Your task to perform on an android device: Open Reddit.com Image 0: 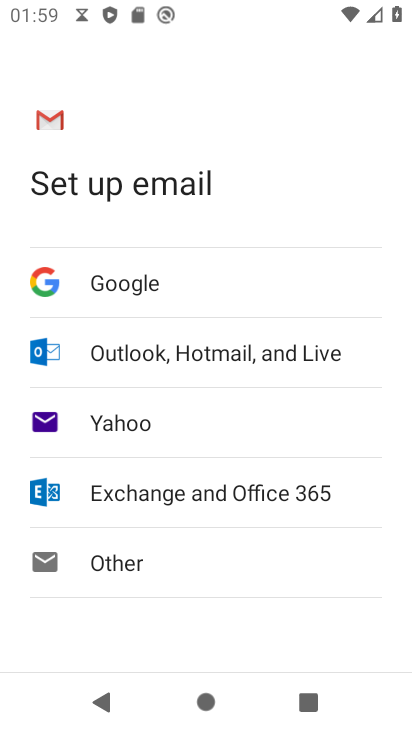
Step 0: press home button
Your task to perform on an android device: Open Reddit.com Image 1: 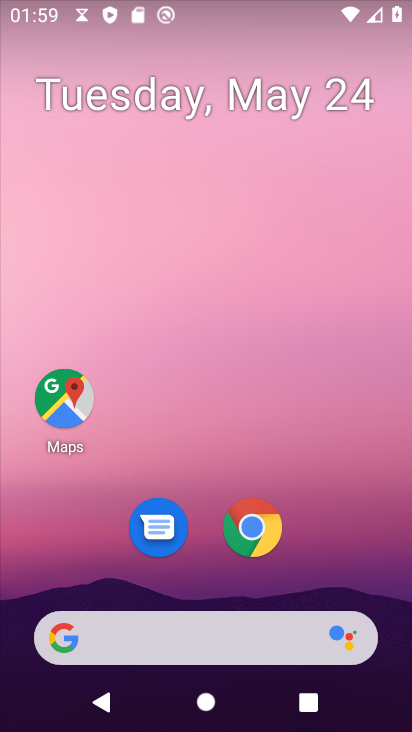
Step 1: click (254, 526)
Your task to perform on an android device: Open Reddit.com Image 2: 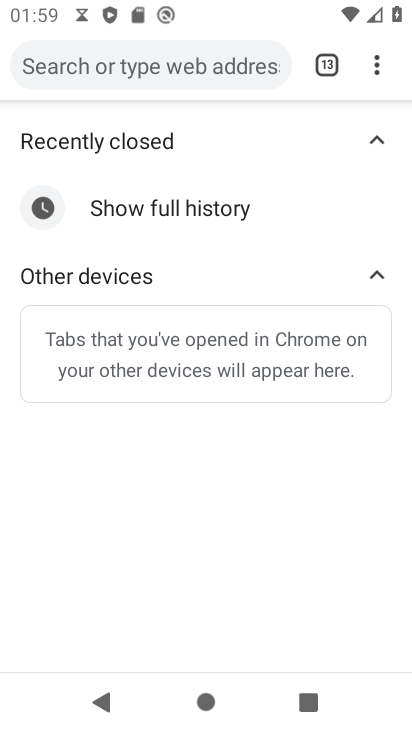
Step 2: drag from (380, 67) to (189, 121)
Your task to perform on an android device: Open Reddit.com Image 3: 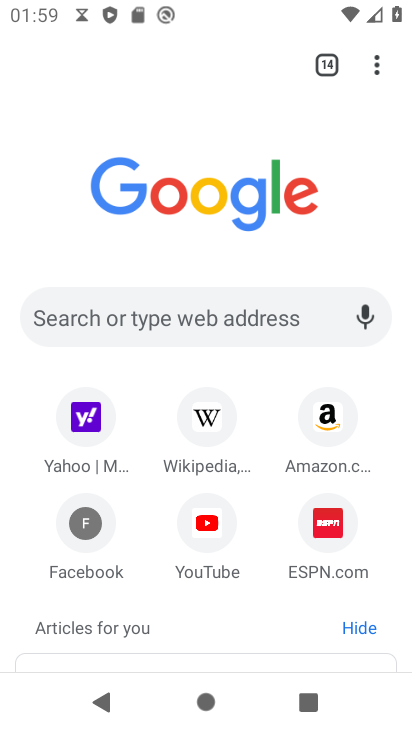
Step 3: click (111, 320)
Your task to perform on an android device: Open Reddit.com Image 4: 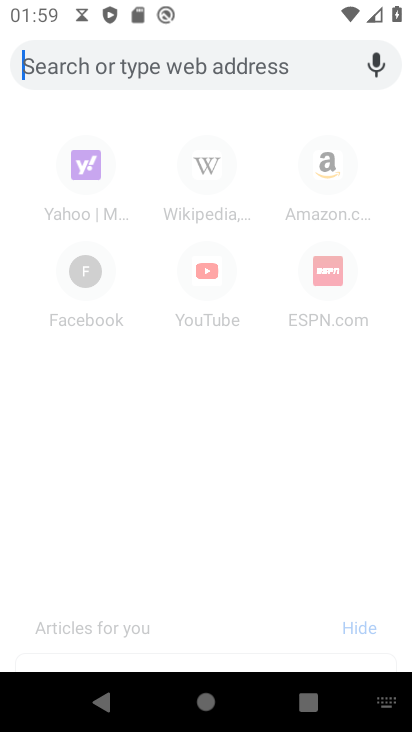
Step 4: type "reddit.com"
Your task to perform on an android device: Open Reddit.com Image 5: 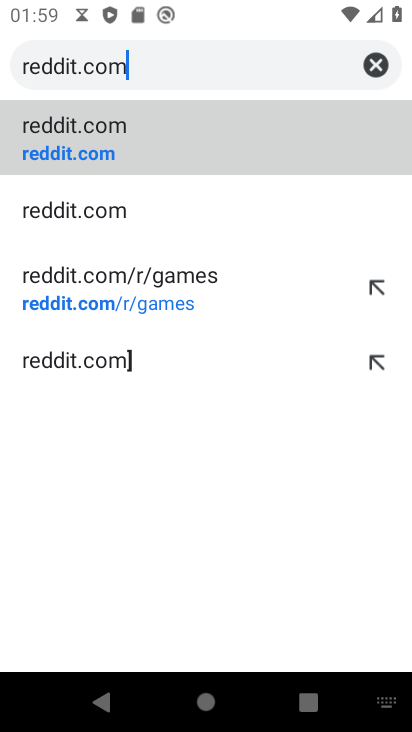
Step 5: click (67, 119)
Your task to perform on an android device: Open Reddit.com Image 6: 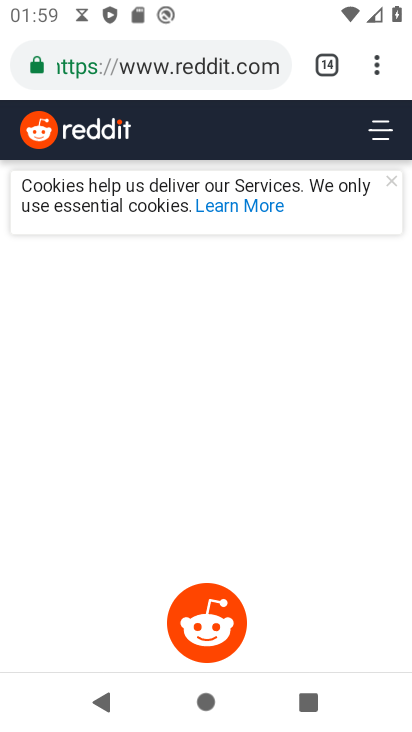
Step 6: task complete